Your task to perform on an android device: allow cookies in the chrome app Image 0: 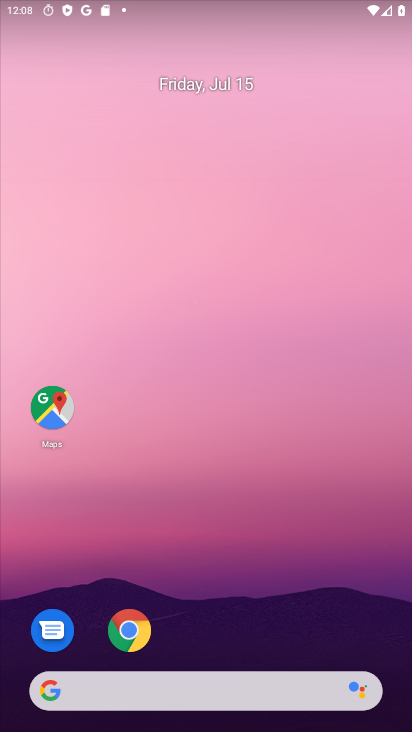
Step 0: drag from (198, 637) to (279, 243)
Your task to perform on an android device: allow cookies in the chrome app Image 1: 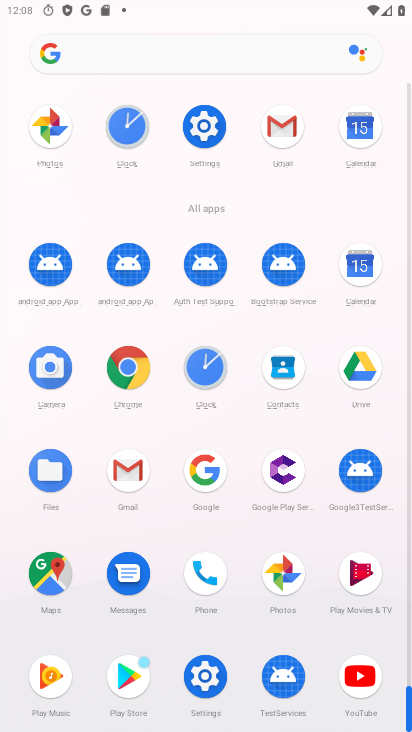
Step 1: click (127, 366)
Your task to perform on an android device: allow cookies in the chrome app Image 2: 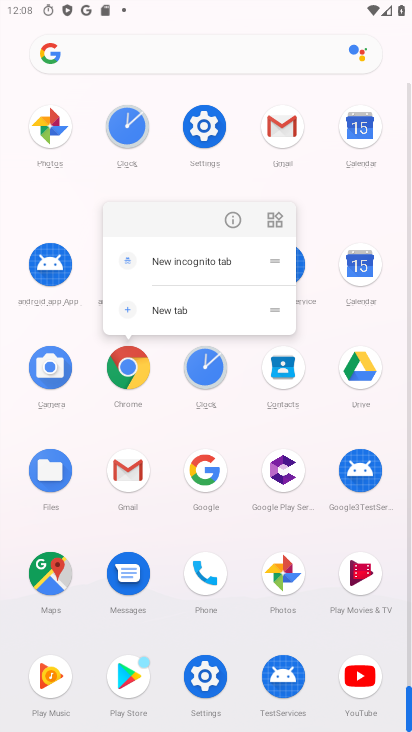
Step 2: click (234, 226)
Your task to perform on an android device: allow cookies in the chrome app Image 3: 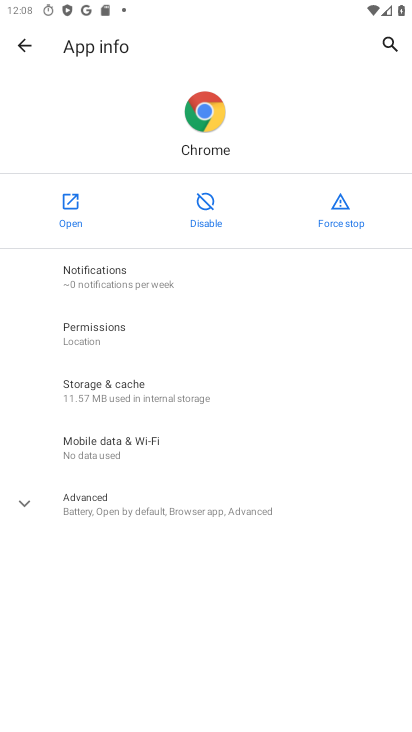
Step 3: click (70, 212)
Your task to perform on an android device: allow cookies in the chrome app Image 4: 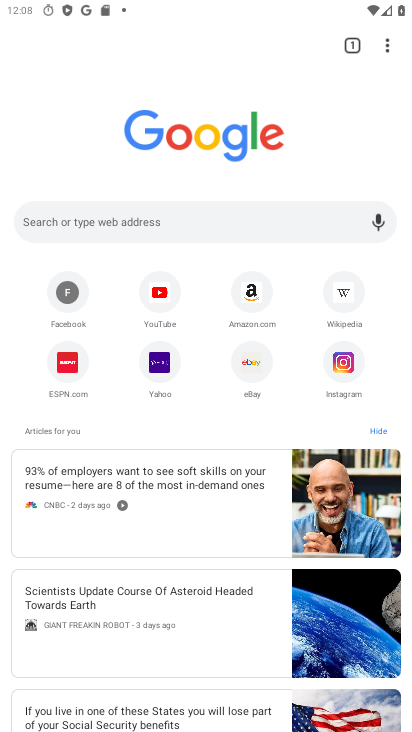
Step 4: click (383, 52)
Your task to perform on an android device: allow cookies in the chrome app Image 5: 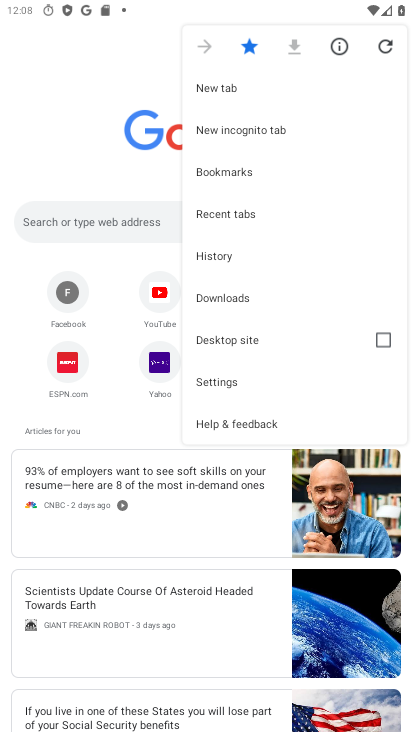
Step 5: click (219, 376)
Your task to perform on an android device: allow cookies in the chrome app Image 6: 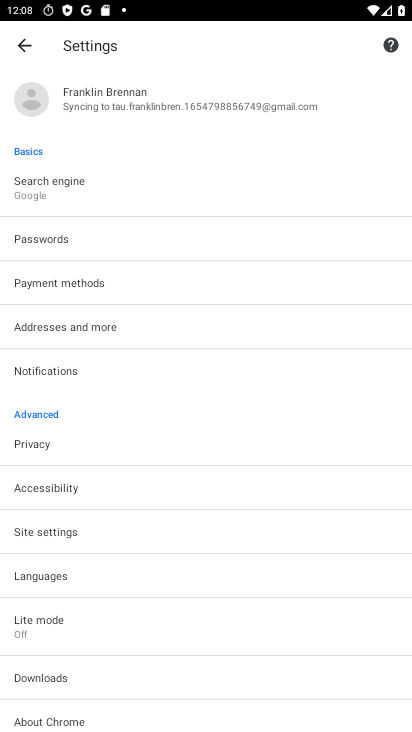
Step 6: click (90, 528)
Your task to perform on an android device: allow cookies in the chrome app Image 7: 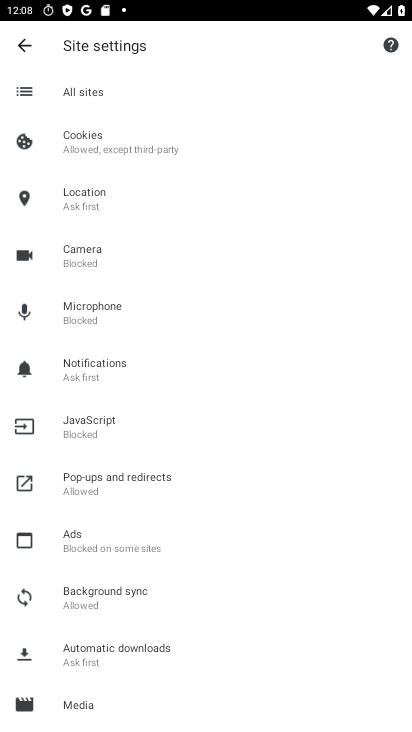
Step 7: click (155, 148)
Your task to perform on an android device: allow cookies in the chrome app Image 8: 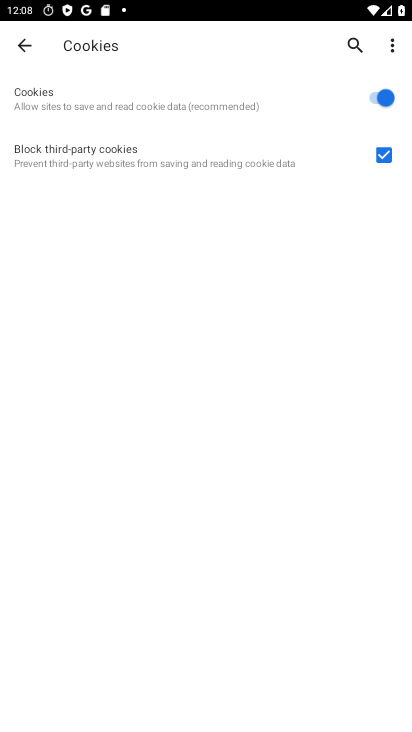
Step 8: task complete